Your task to perform on an android device: Open the map Image 0: 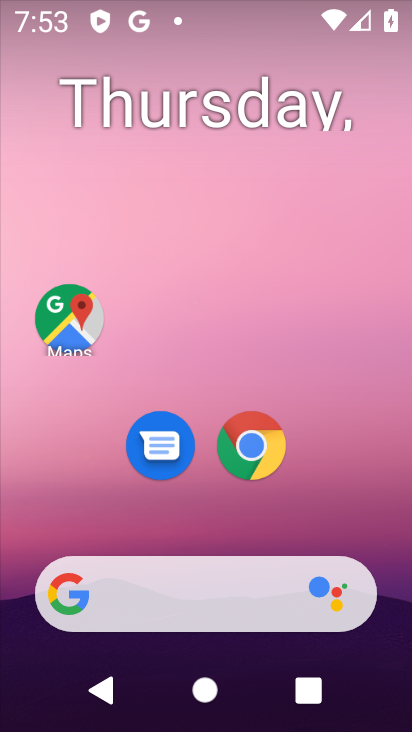
Step 0: drag from (360, 506) to (361, 105)
Your task to perform on an android device: Open the map Image 1: 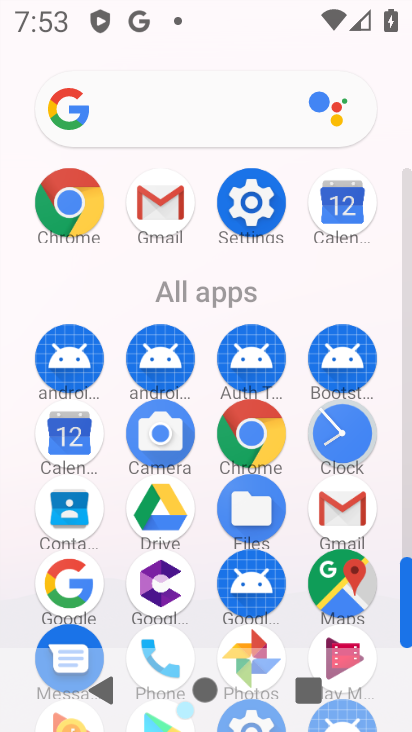
Step 1: click (328, 579)
Your task to perform on an android device: Open the map Image 2: 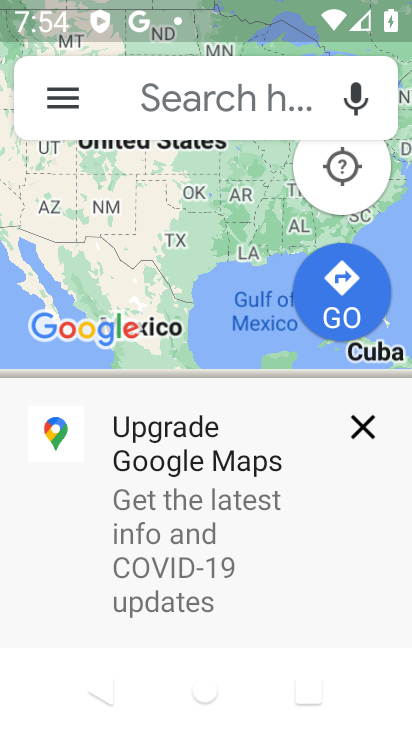
Step 2: task complete